Your task to perform on an android device: Go to location settings Image 0: 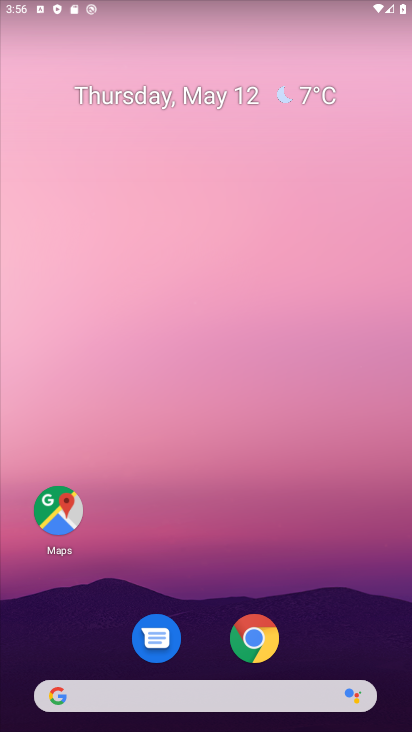
Step 0: drag from (299, 510) to (226, 104)
Your task to perform on an android device: Go to location settings Image 1: 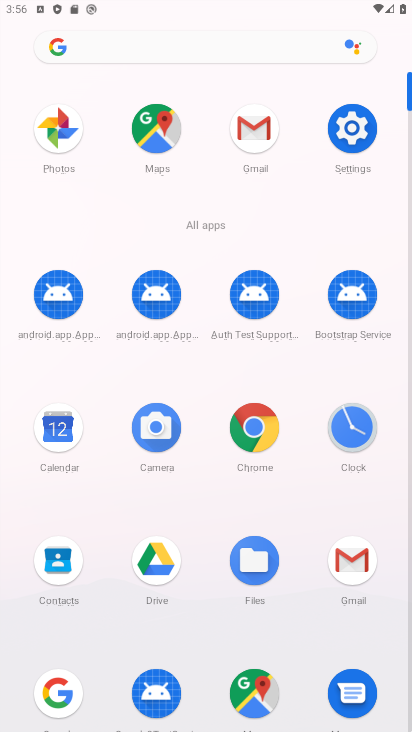
Step 1: click (362, 121)
Your task to perform on an android device: Go to location settings Image 2: 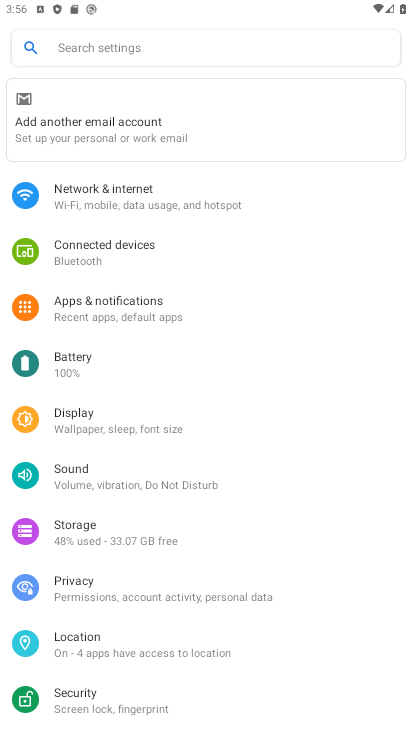
Step 2: click (167, 633)
Your task to perform on an android device: Go to location settings Image 3: 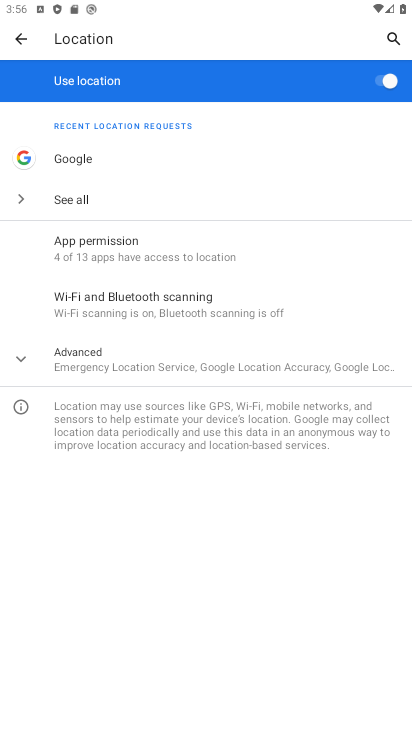
Step 3: task complete